Your task to perform on an android device: Open the Play Movies app and select the watchlist tab. Image 0: 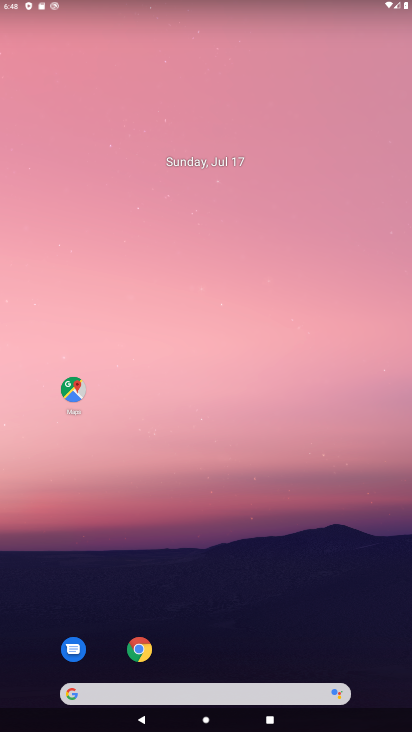
Step 0: press home button
Your task to perform on an android device: Open the Play Movies app and select the watchlist tab. Image 1: 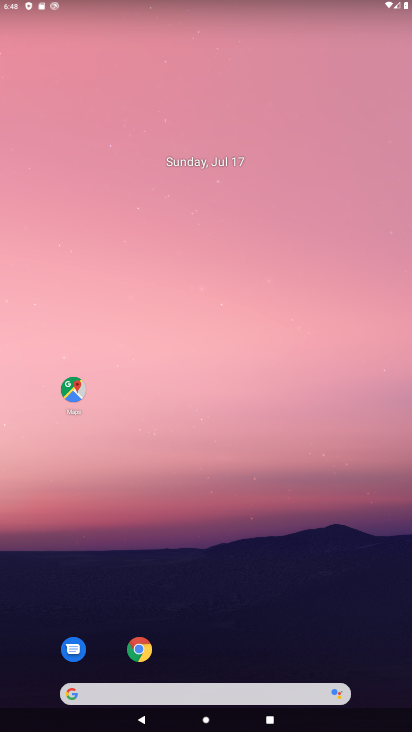
Step 1: drag from (245, 587) to (256, 161)
Your task to perform on an android device: Open the Play Movies app and select the watchlist tab. Image 2: 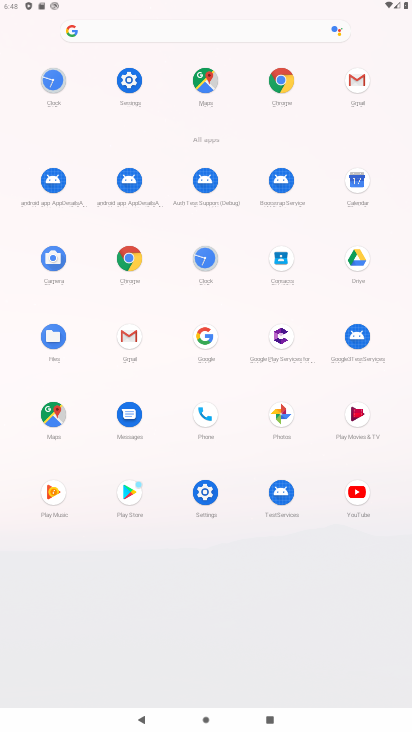
Step 2: click (357, 412)
Your task to perform on an android device: Open the Play Movies app and select the watchlist tab. Image 3: 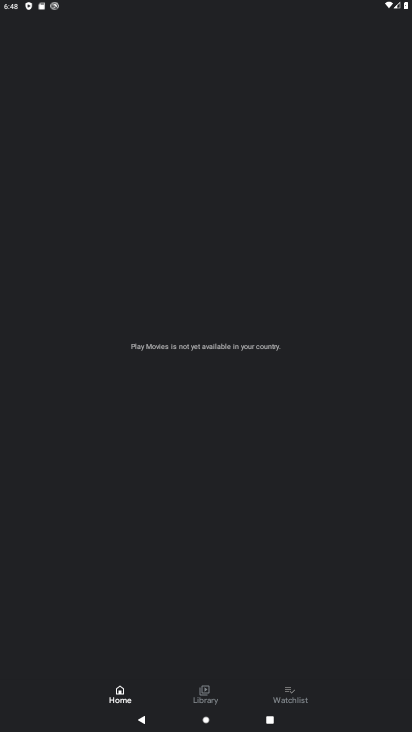
Step 3: click (292, 694)
Your task to perform on an android device: Open the Play Movies app and select the watchlist tab. Image 4: 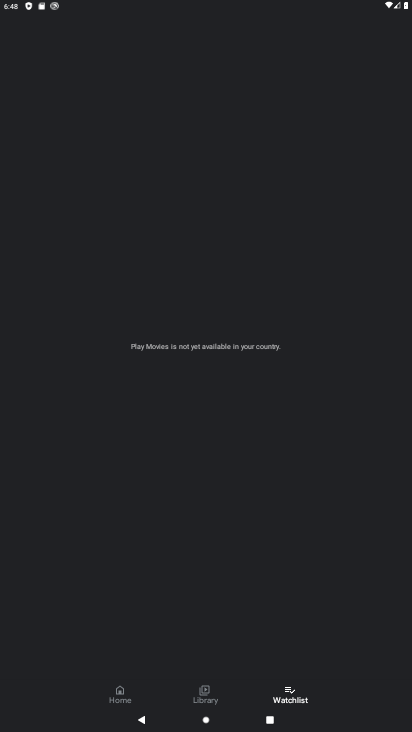
Step 4: task complete